Your task to perform on an android device: Do I have any events this weekend? Image 0: 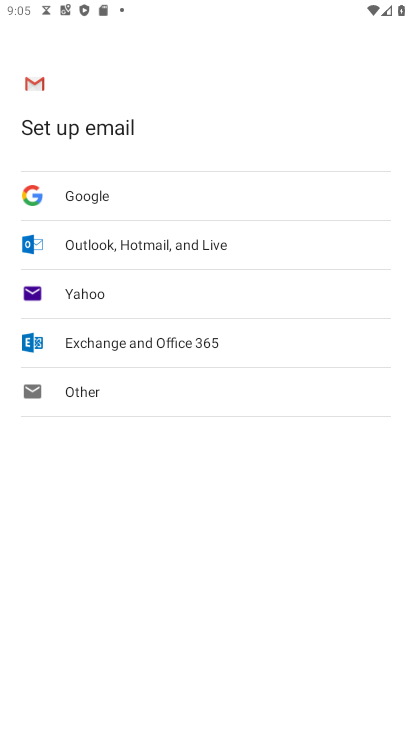
Step 0: press home button
Your task to perform on an android device: Do I have any events this weekend? Image 1: 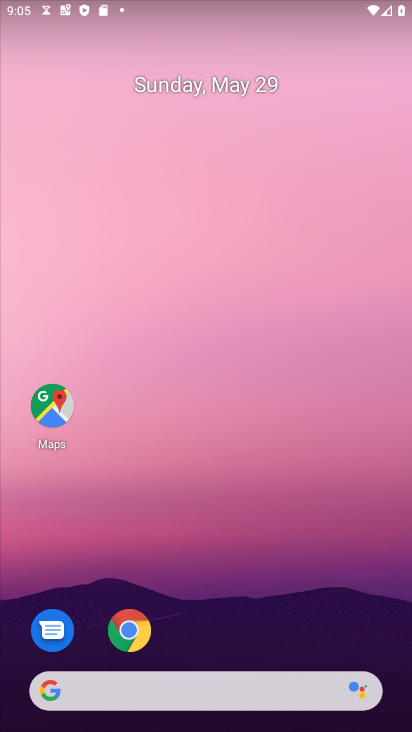
Step 1: click (234, 86)
Your task to perform on an android device: Do I have any events this weekend? Image 2: 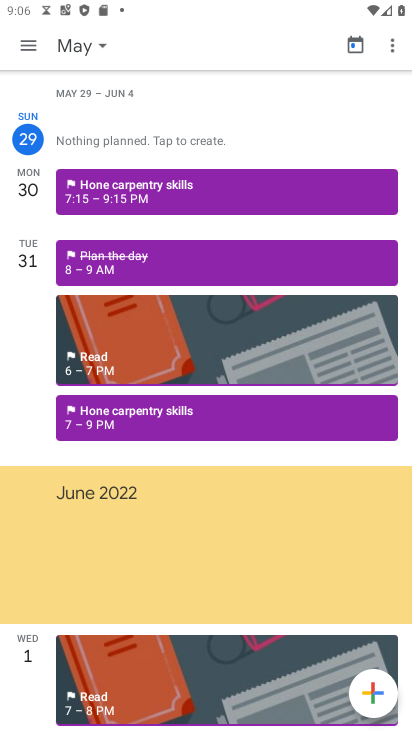
Step 2: click (29, 44)
Your task to perform on an android device: Do I have any events this weekend? Image 3: 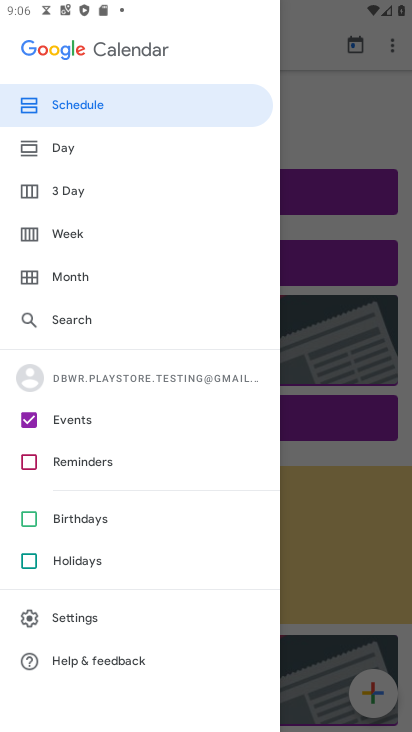
Step 3: click (344, 103)
Your task to perform on an android device: Do I have any events this weekend? Image 4: 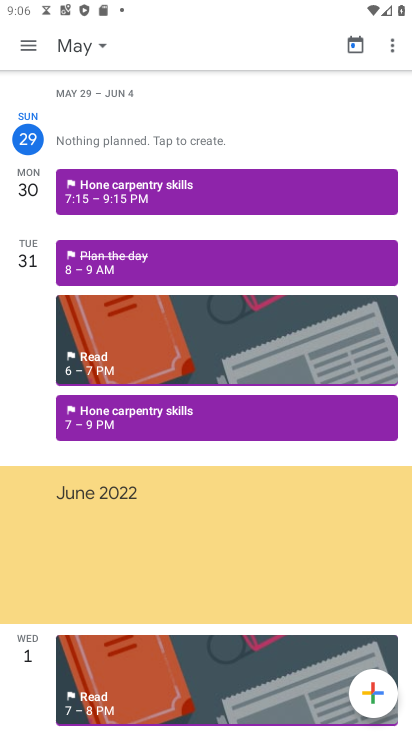
Step 4: click (25, 47)
Your task to perform on an android device: Do I have any events this weekend? Image 5: 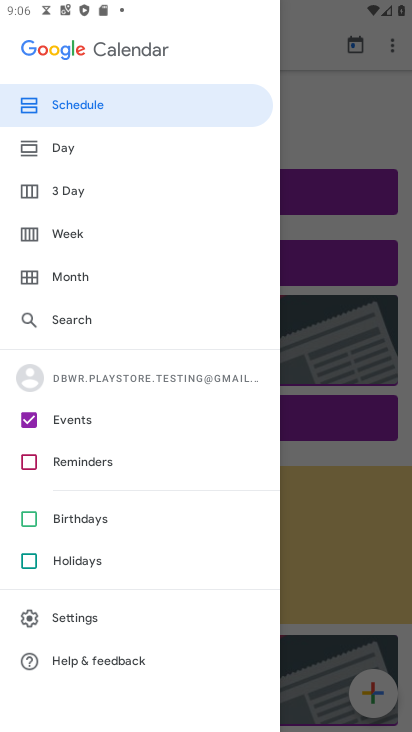
Step 5: click (79, 196)
Your task to perform on an android device: Do I have any events this weekend? Image 6: 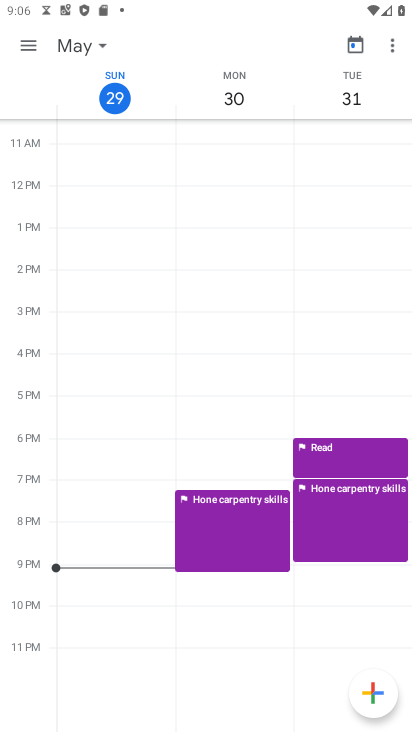
Step 6: task complete